Your task to perform on an android device: clear all cookies in the chrome app Image 0: 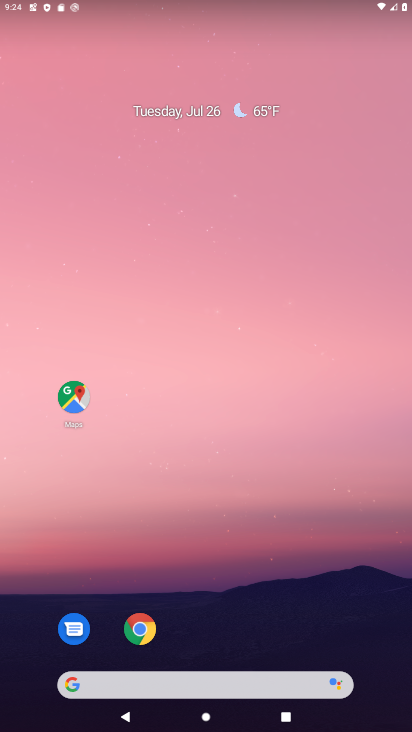
Step 0: drag from (233, 623) to (196, 166)
Your task to perform on an android device: clear all cookies in the chrome app Image 1: 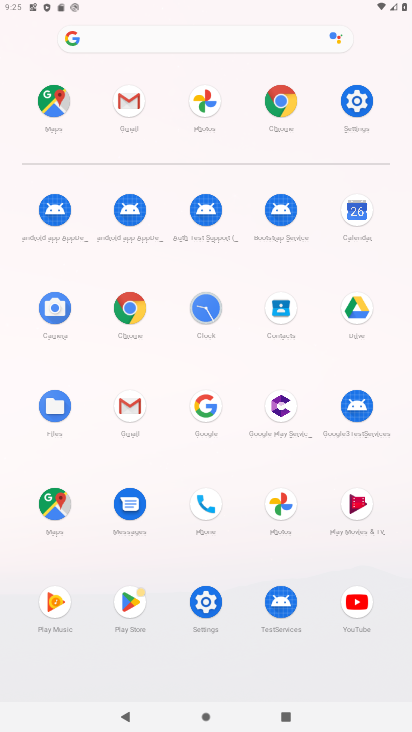
Step 1: click (285, 103)
Your task to perform on an android device: clear all cookies in the chrome app Image 2: 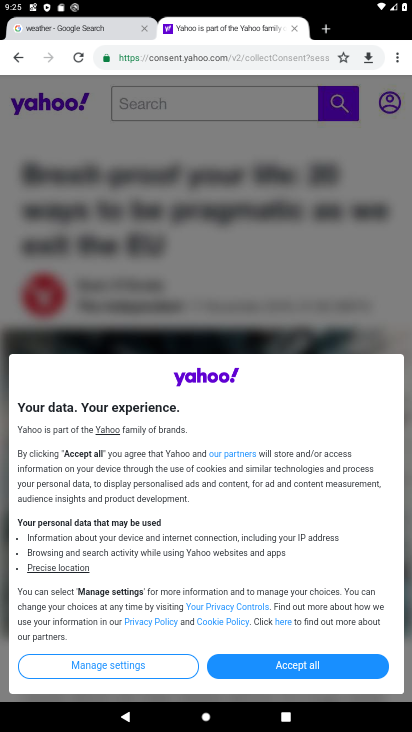
Step 2: drag from (402, 50) to (278, 171)
Your task to perform on an android device: clear all cookies in the chrome app Image 3: 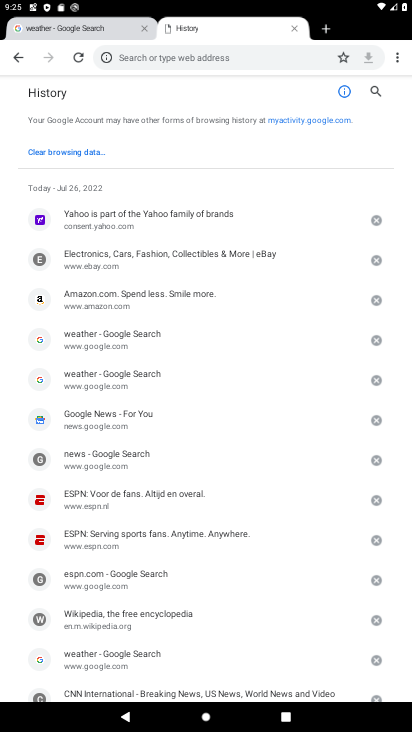
Step 3: click (90, 151)
Your task to perform on an android device: clear all cookies in the chrome app Image 4: 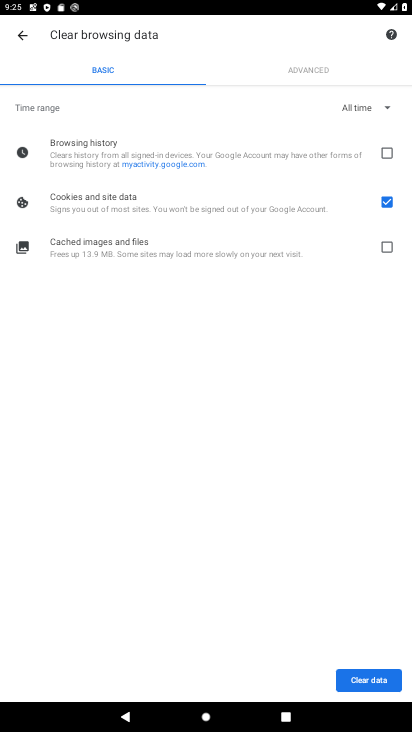
Step 4: click (372, 671)
Your task to perform on an android device: clear all cookies in the chrome app Image 5: 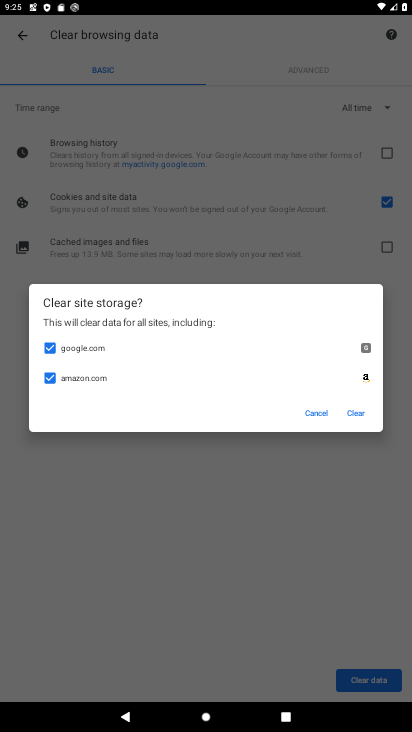
Step 5: click (348, 422)
Your task to perform on an android device: clear all cookies in the chrome app Image 6: 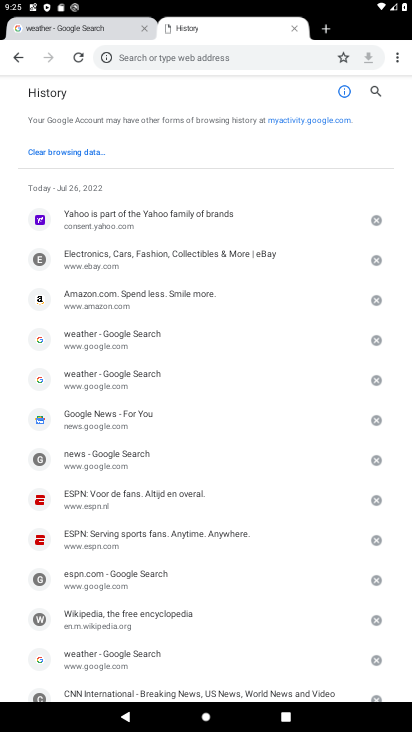
Step 6: task complete